Your task to perform on an android device: Open location settings Image 0: 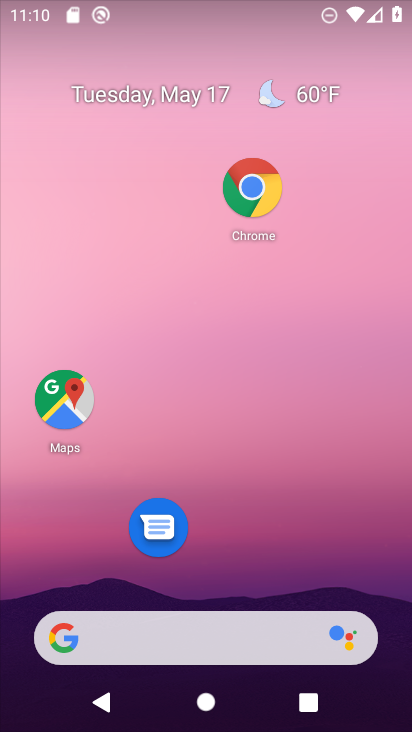
Step 0: drag from (308, 596) to (255, 199)
Your task to perform on an android device: Open location settings Image 1: 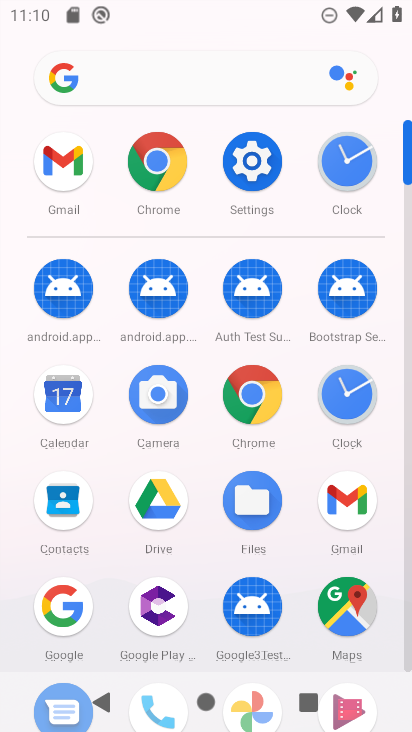
Step 1: click (249, 200)
Your task to perform on an android device: Open location settings Image 2: 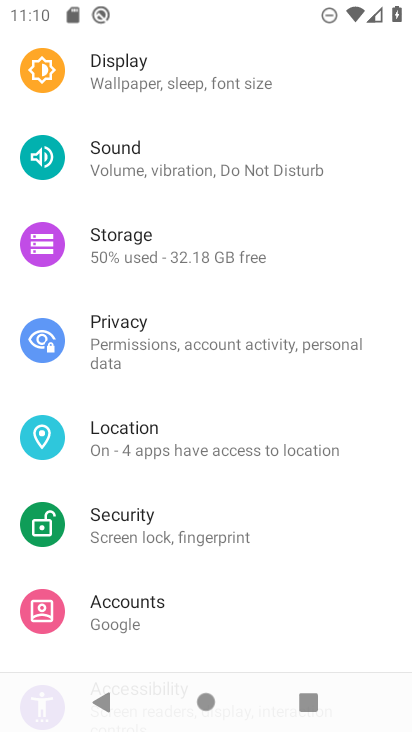
Step 2: click (235, 424)
Your task to perform on an android device: Open location settings Image 3: 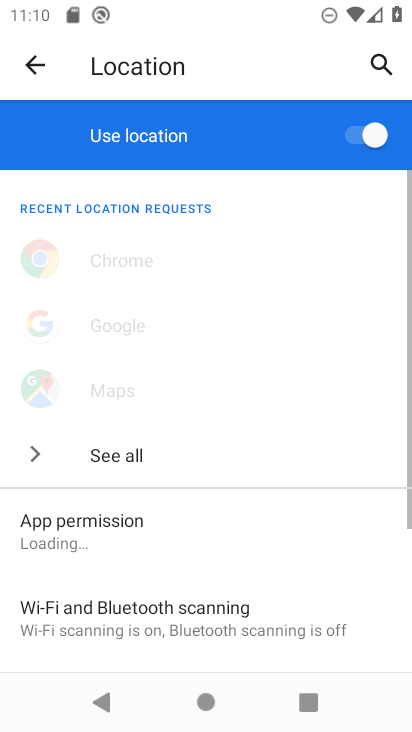
Step 3: task complete